Your task to perform on an android device: empty trash in google photos Image 0: 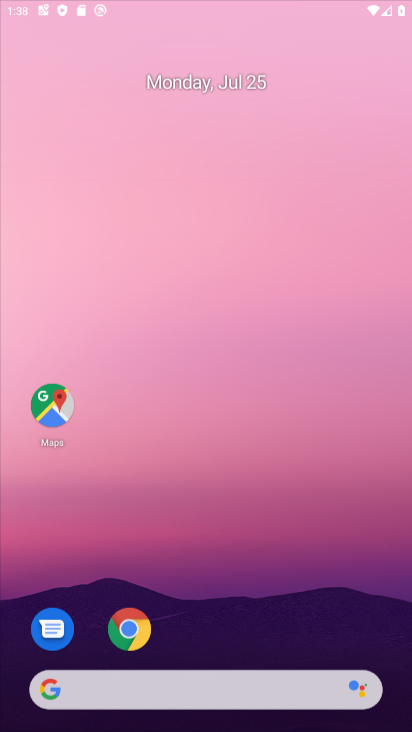
Step 0: drag from (241, 644) to (318, 14)
Your task to perform on an android device: empty trash in google photos Image 1: 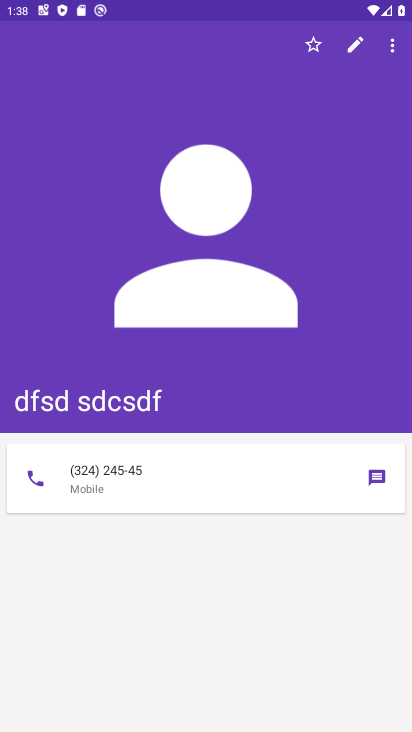
Step 1: press home button
Your task to perform on an android device: empty trash in google photos Image 2: 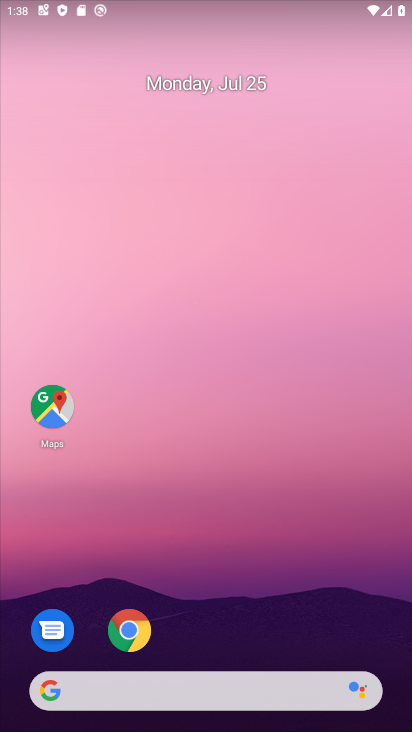
Step 2: drag from (254, 648) to (238, 174)
Your task to perform on an android device: empty trash in google photos Image 3: 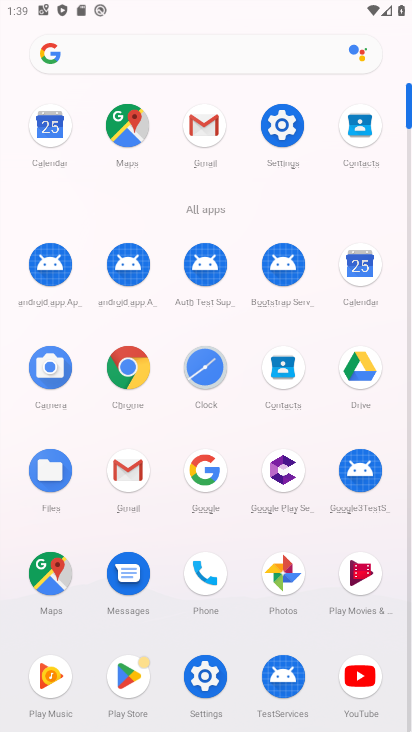
Step 3: click (269, 568)
Your task to perform on an android device: empty trash in google photos Image 4: 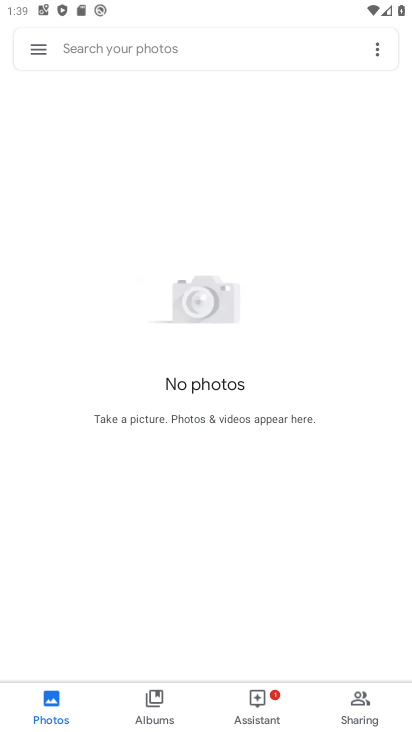
Step 4: click (49, 60)
Your task to perform on an android device: empty trash in google photos Image 5: 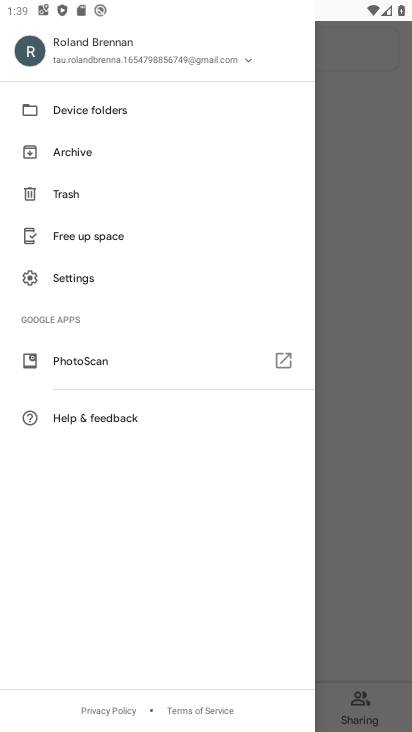
Step 5: click (86, 189)
Your task to perform on an android device: empty trash in google photos Image 6: 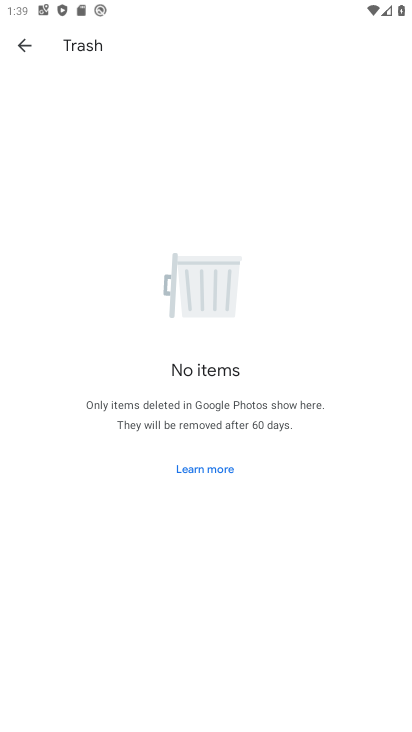
Step 6: task complete